Your task to perform on an android device: Go to Reddit.com Image 0: 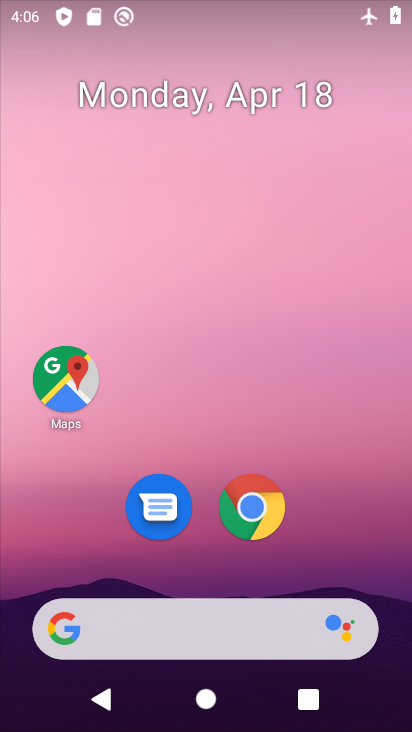
Step 0: drag from (121, 601) to (180, 29)
Your task to perform on an android device: Go to Reddit.com Image 1: 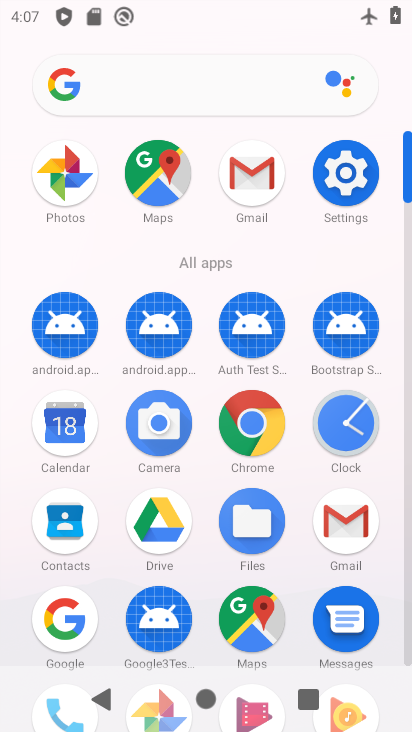
Step 1: click (233, 434)
Your task to perform on an android device: Go to Reddit.com Image 2: 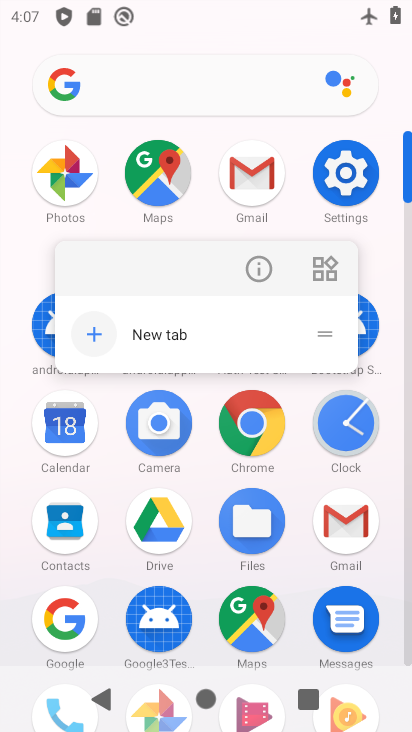
Step 2: click (192, 327)
Your task to perform on an android device: Go to Reddit.com Image 3: 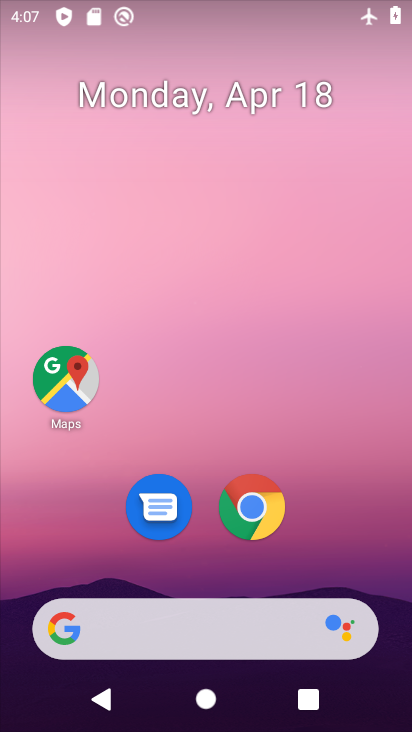
Step 3: click (261, 518)
Your task to perform on an android device: Go to Reddit.com Image 4: 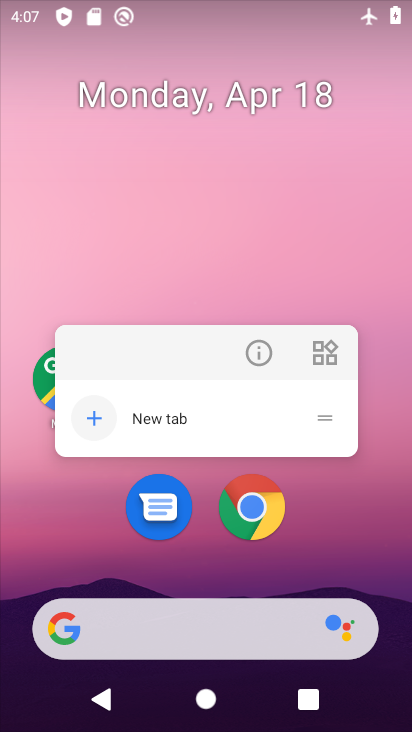
Step 4: drag from (305, 566) to (289, 4)
Your task to perform on an android device: Go to Reddit.com Image 5: 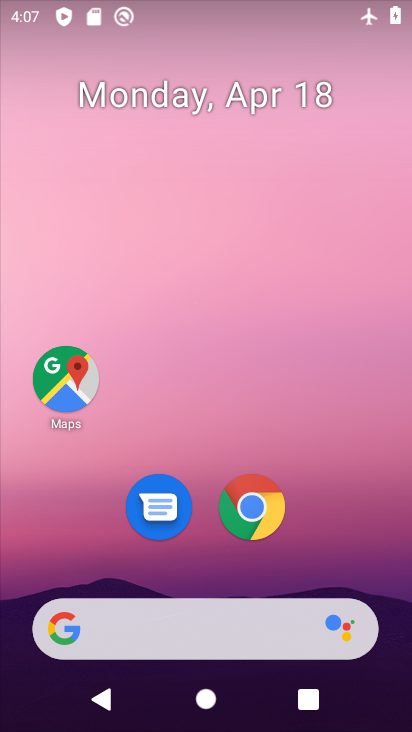
Step 5: drag from (297, 601) to (273, 118)
Your task to perform on an android device: Go to Reddit.com Image 6: 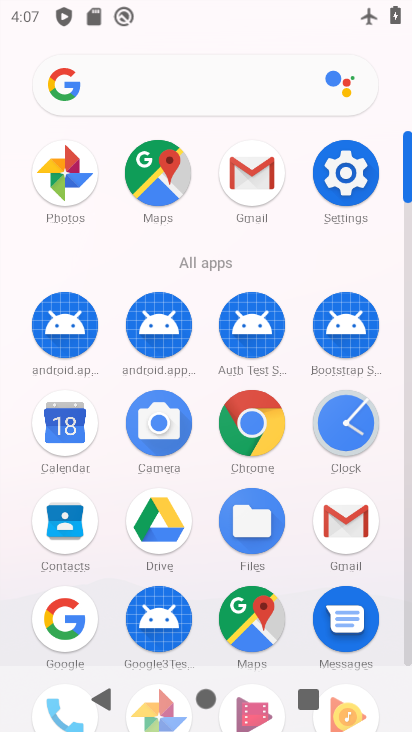
Step 6: click (246, 427)
Your task to perform on an android device: Go to Reddit.com Image 7: 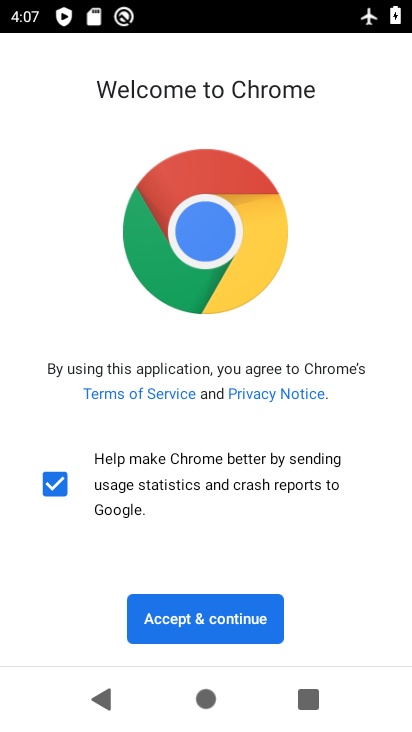
Step 7: click (239, 616)
Your task to perform on an android device: Go to Reddit.com Image 8: 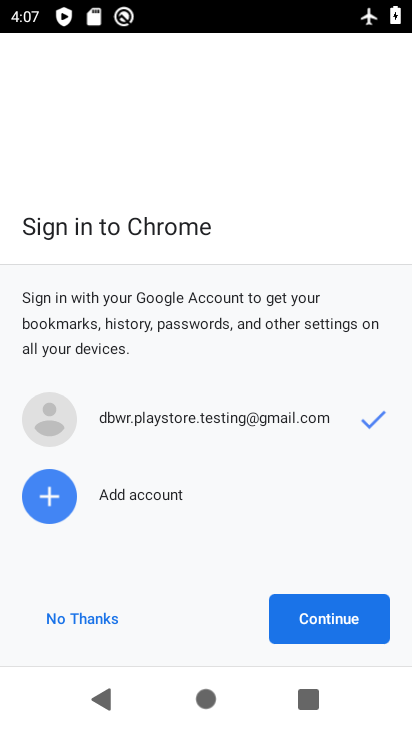
Step 8: click (67, 616)
Your task to perform on an android device: Go to Reddit.com Image 9: 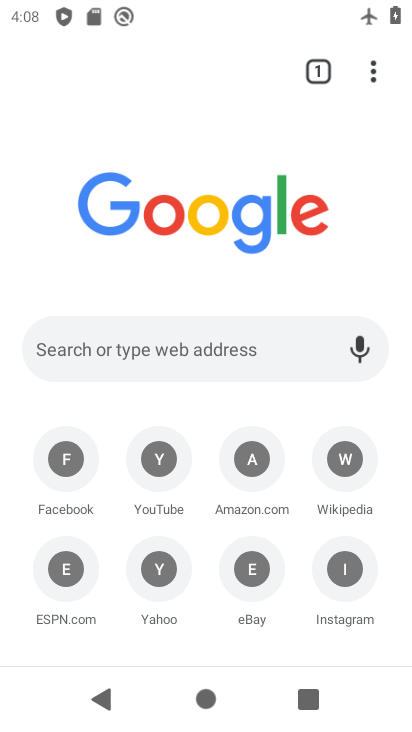
Step 9: click (158, 347)
Your task to perform on an android device: Go to Reddit.com Image 10: 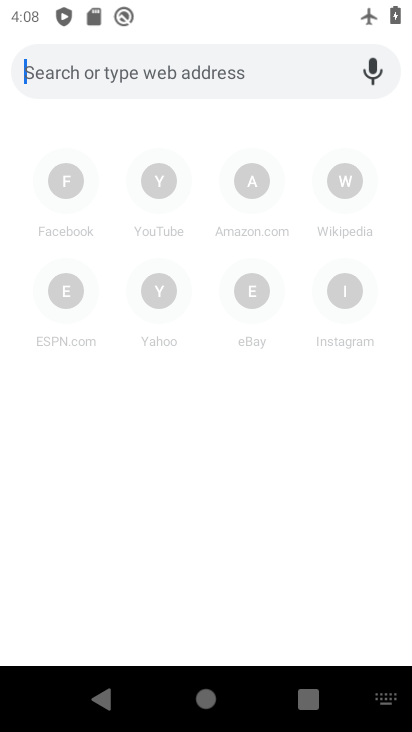
Step 10: type "reddit.com"
Your task to perform on an android device: Go to Reddit.com Image 11: 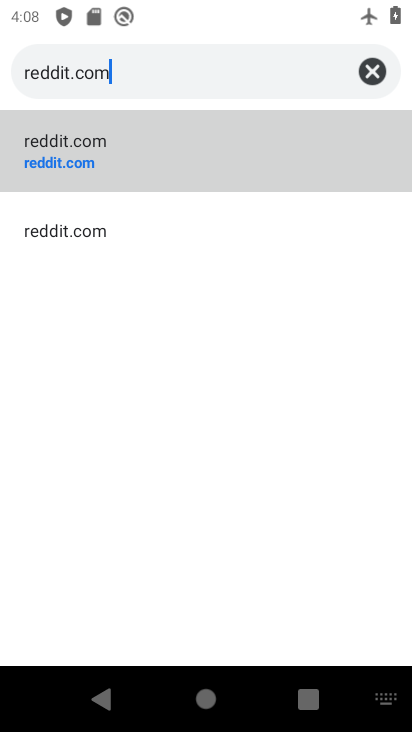
Step 11: click (123, 162)
Your task to perform on an android device: Go to Reddit.com Image 12: 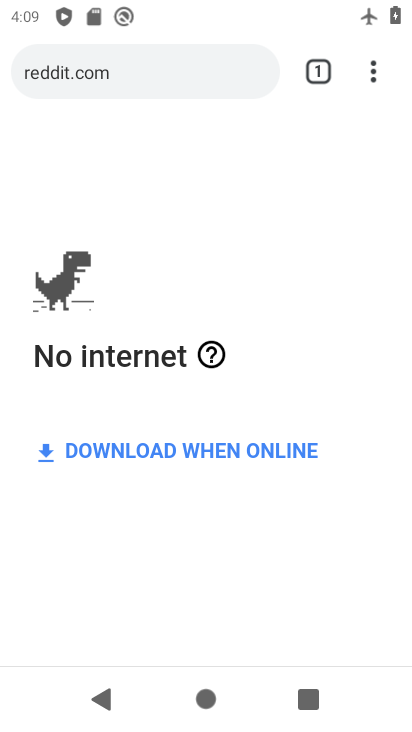
Step 12: task complete